Your task to perform on an android device: turn on showing notifications on the lock screen Image 0: 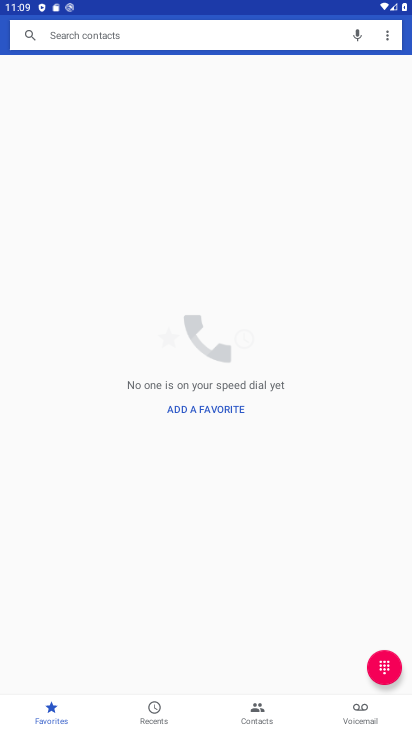
Step 0: press home button
Your task to perform on an android device: turn on showing notifications on the lock screen Image 1: 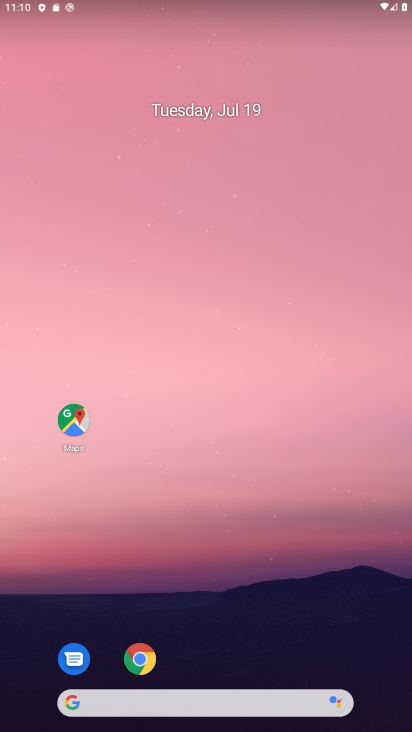
Step 1: drag from (213, 668) to (202, 12)
Your task to perform on an android device: turn on showing notifications on the lock screen Image 2: 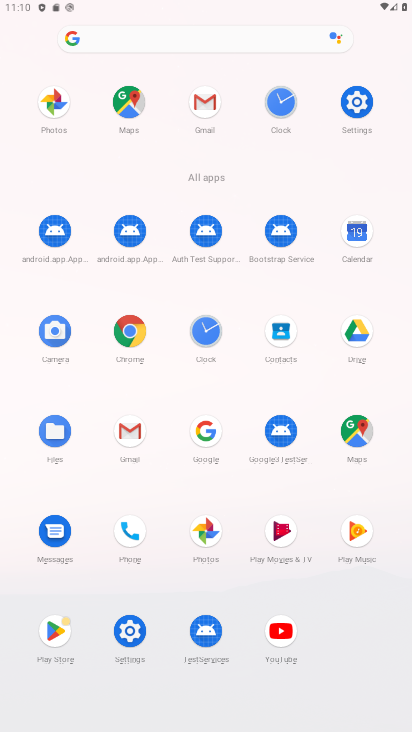
Step 2: click (353, 96)
Your task to perform on an android device: turn on showing notifications on the lock screen Image 3: 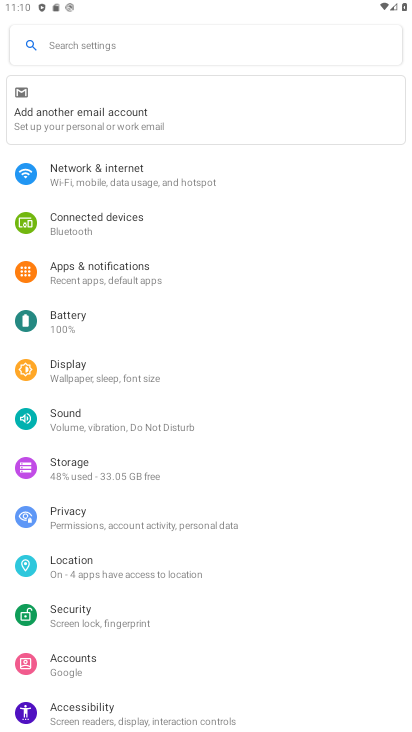
Step 3: click (181, 267)
Your task to perform on an android device: turn on showing notifications on the lock screen Image 4: 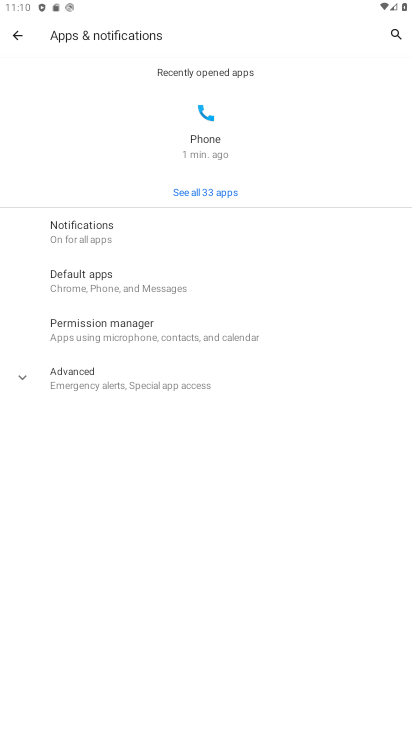
Step 4: click (129, 228)
Your task to perform on an android device: turn on showing notifications on the lock screen Image 5: 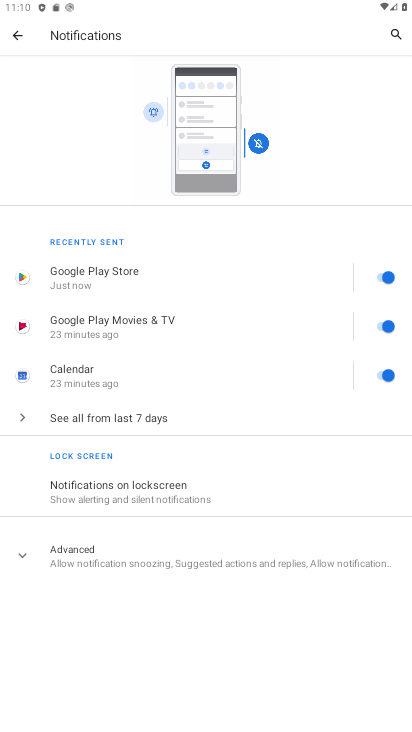
Step 5: click (209, 485)
Your task to perform on an android device: turn on showing notifications on the lock screen Image 6: 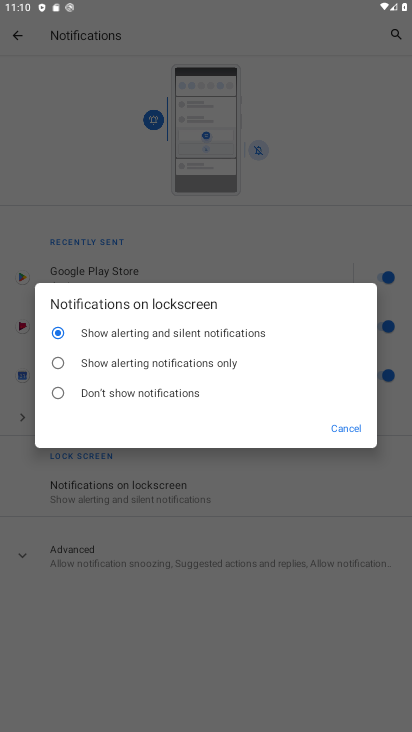
Step 6: click (57, 359)
Your task to perform on an android device: turn on showing notifications on the lock screen Image 7: 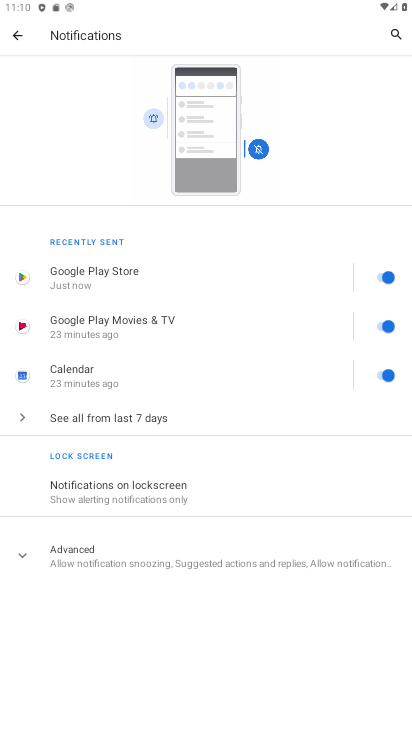
Step 7: task complete